Your task to perform on an android device: Open the phone app and click the voicemail tab. Image 0: 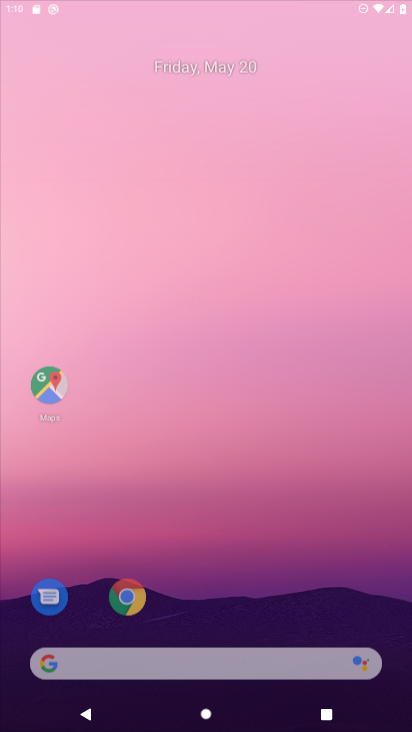
Step 0: press home button
Your task to perform on an android device: Open the phone app and click the voicemail tab. Image 1: 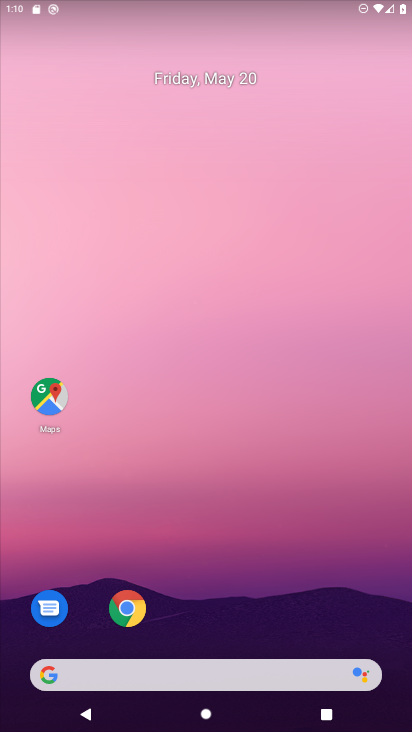
Step 1: drag from (253, 611) to (293, 24)
Your task to perform on an android device: Open the phone app and click the voicemail tab. Image 2: 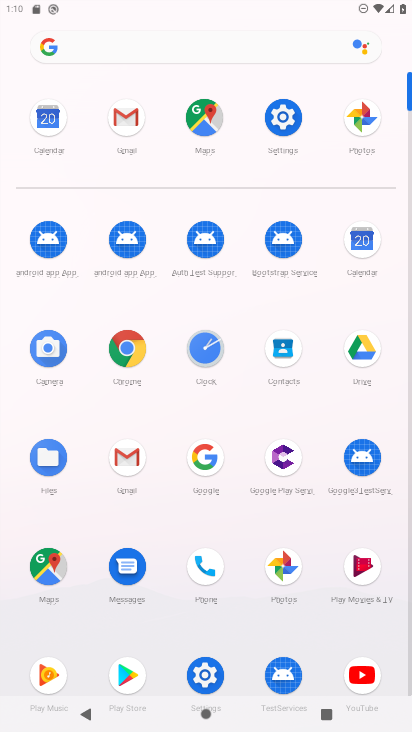
Step 2: click (193, 598)
Your task to perform on an android device: Open the phone app and click the voicemail tab. Image 3: 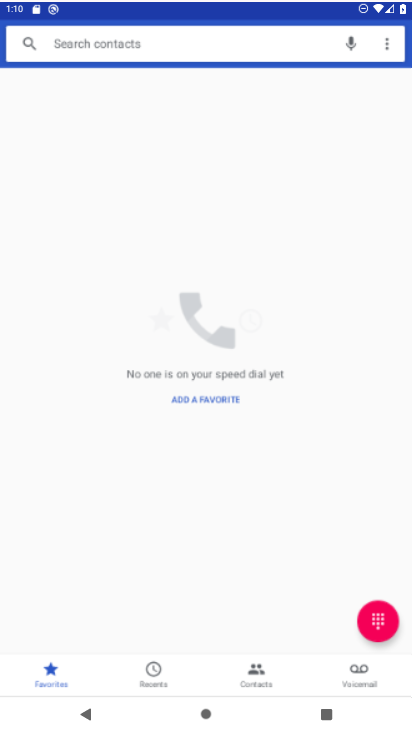
Step 3: click (193, 575)
Your task to perform on an android device: Open the phone app and click the voicemail tab. Image 4: 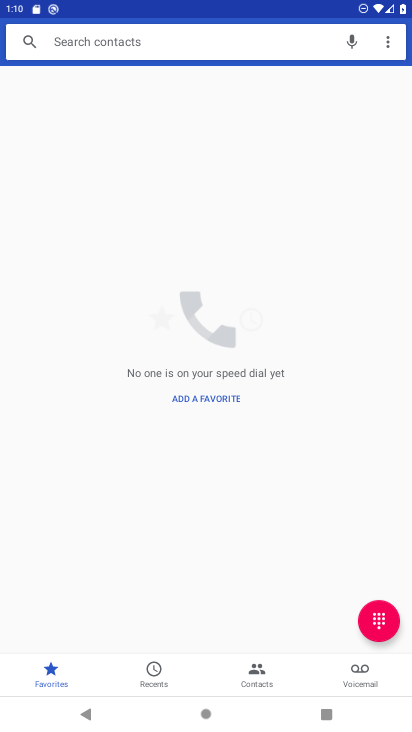
Step 4: click (343, 667)
Your task to perform on an android device: Open the phone app and click the voicemail tab. Image 5: 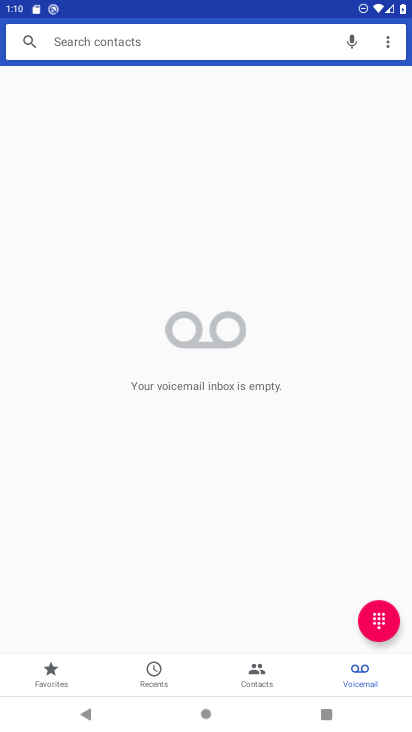
Step 5: task complete